Your task to perform on an android device: change the clock display to show seconds Image 0: 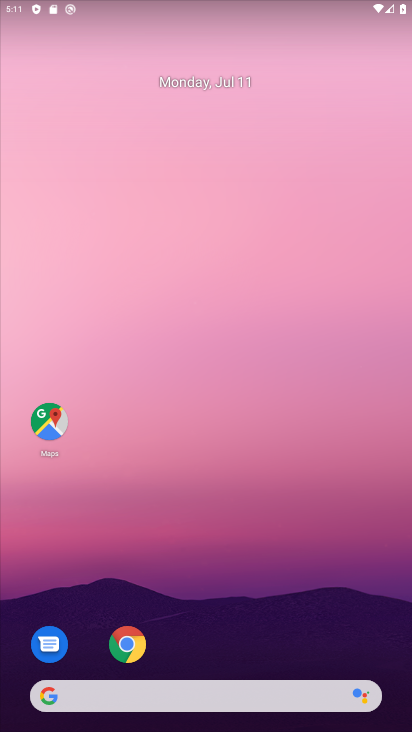
Step 0: drag from (281, 660) to (353, 1)
Your task to perform on an android device: change the clock display to show seconds Image 1: 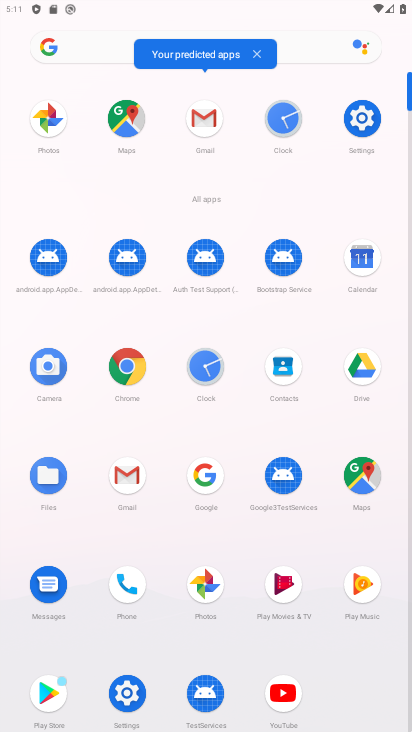
Step 1: click (198, 374)
Your task to perform on an android device: change the clock display to show seconds Image 2: 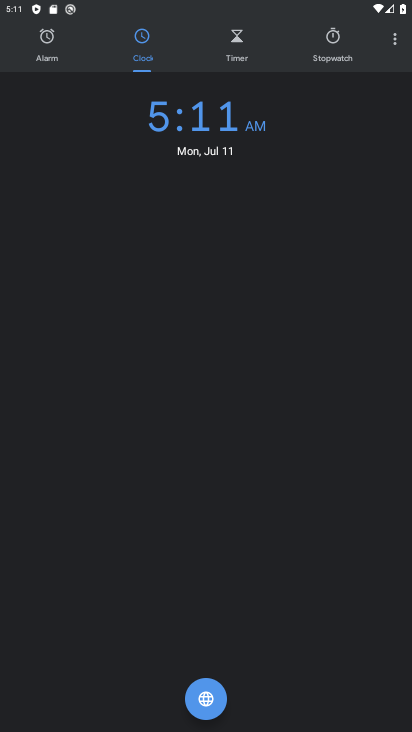
Step 2: click (399, 32)
Your task to perform on an android device: change the clock display to show seconds Image 3: 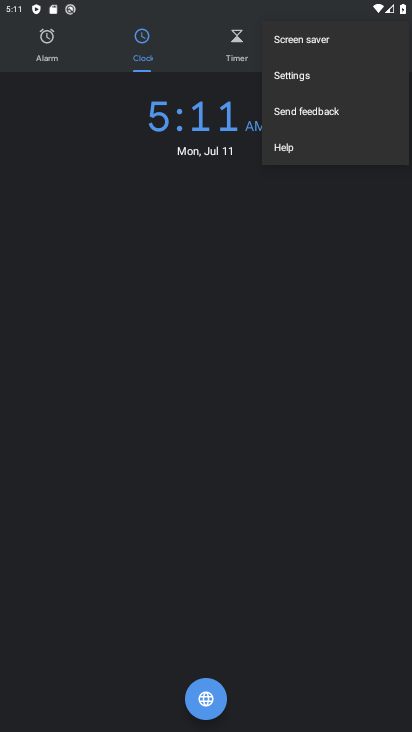
Step 3: click (314, 72)
Your task to perform on an android device: change the clock display to show seconds Image 4: 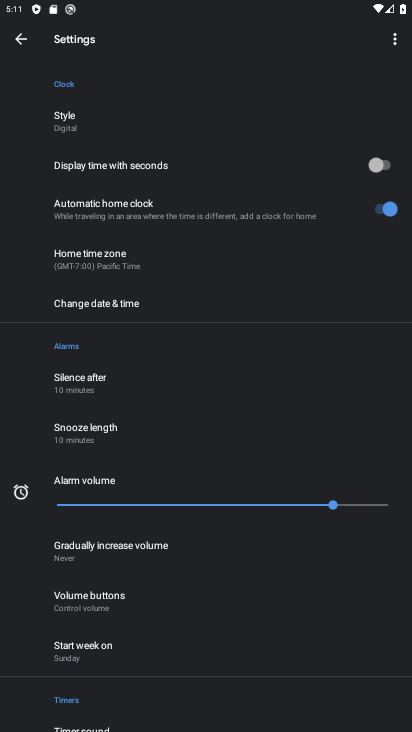
Step 4: click (385, 159)
Your task to perform on an android device: change the clock display to show seconds Image 5: 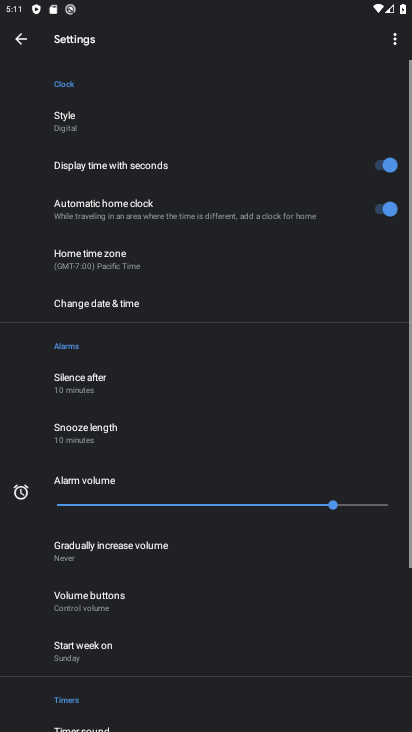
Step 5: task complete